Your task to perform on an android device: Go to privacy settings Image 0: 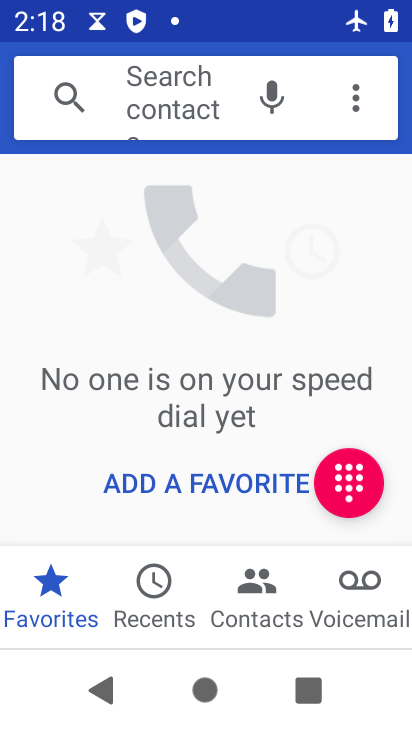
Step 0: press home button
Your task to perform on an android device: Go to privacy settings Image 1: 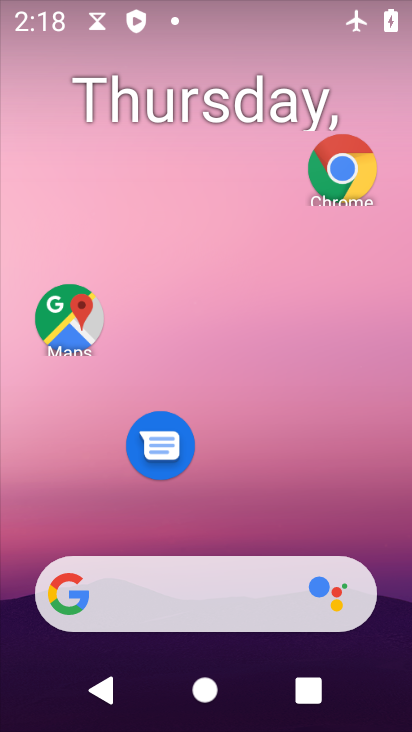
Step 1: click (264, 79)
Your task to perform on an android device: Go to privacy settings Image 2: 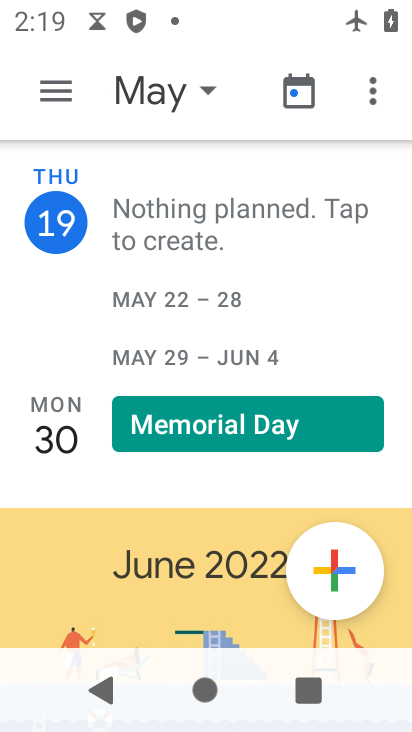
Step 2: drag from (289, 460) to (282, 3)
Your task to perform on an android device: Go to privacy settings Image 3: 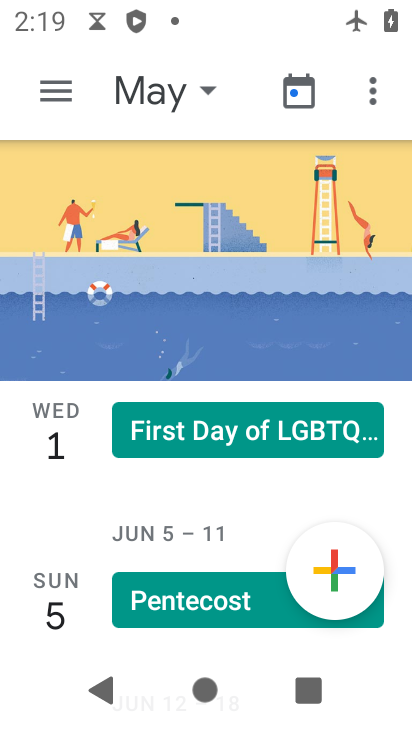
Step 3: press home button
Your task to perform on an android device: Go to privacy settings Image 4: 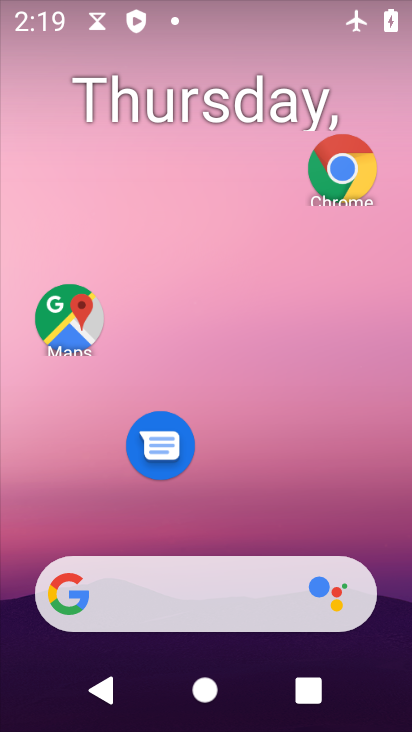
Step 4: drag from (288, 515) to (293, 28)
Your task to perform on an android device: Go to privacy settings Image 5: 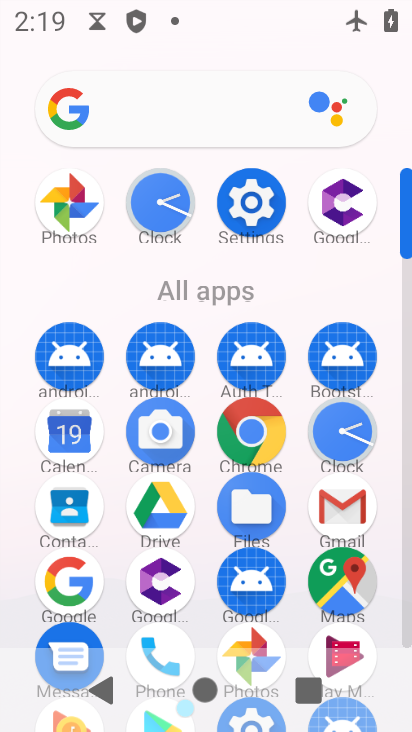
Step 5: drag from (261, 496) to (170, 13)
Your task to perform on an android device: Go to privacy settings Image 6: 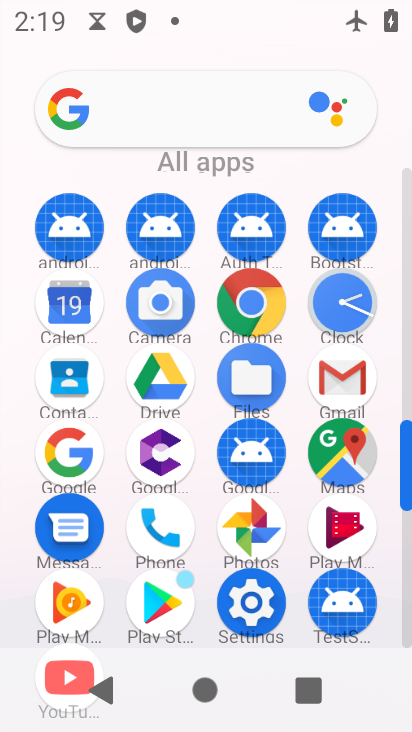
Step 6: click (254, 601)
Your task to perform on an android device: Go to privacy settings Image 7: 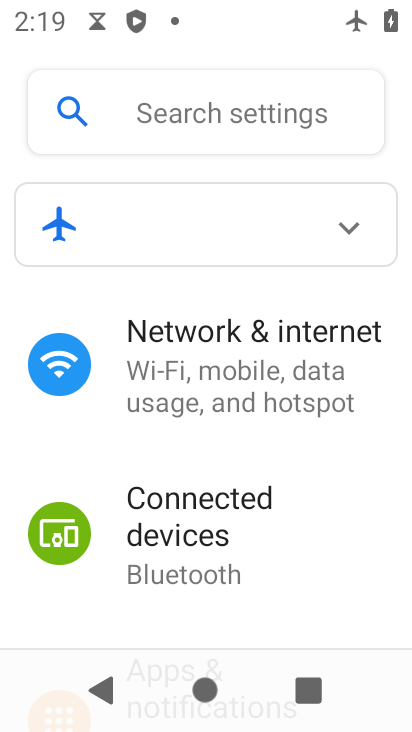
Step 7: drag from (224, 592) to (226, 230)
Your task to perform on an android device: Go to privacy settings Image 8: 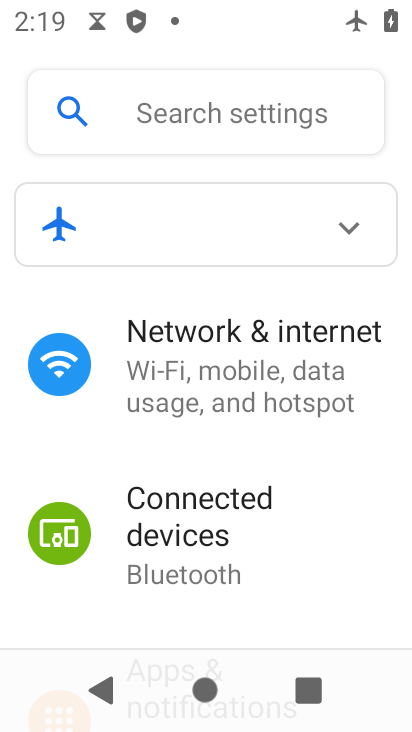
Step 8: click (156, 251)
Your task to perform on an android device: Go to privacy settings Image 9: 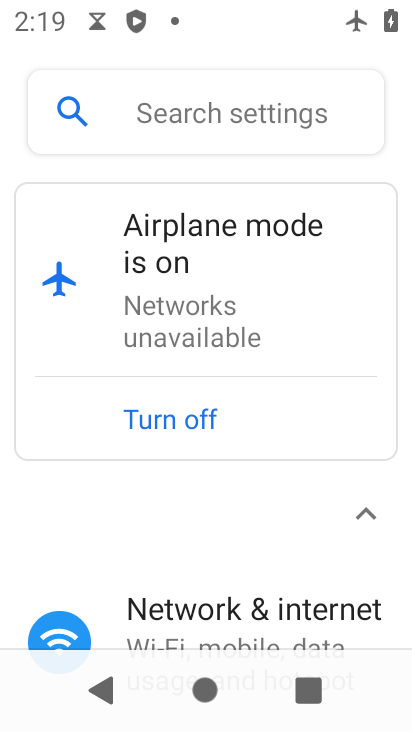
Step 9: drag from (223, 514) to (226, 283)
Your task to perform on an android device: Go to privacy settings Image 10: 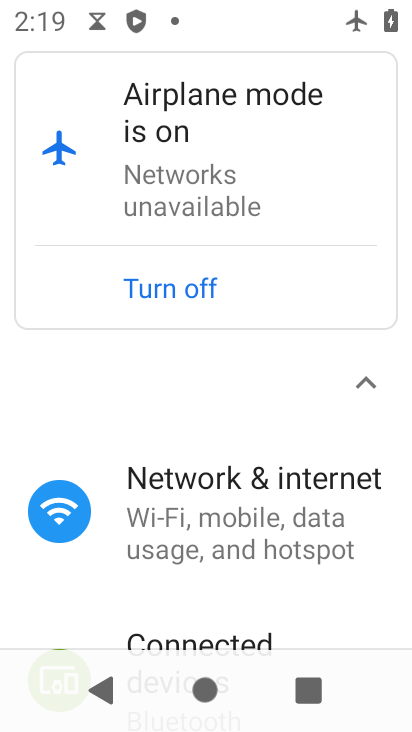
Step 10: drag from (213, 604) to (169, 271)
Your task to perform on an android device: Go to privacy settings Image 11: 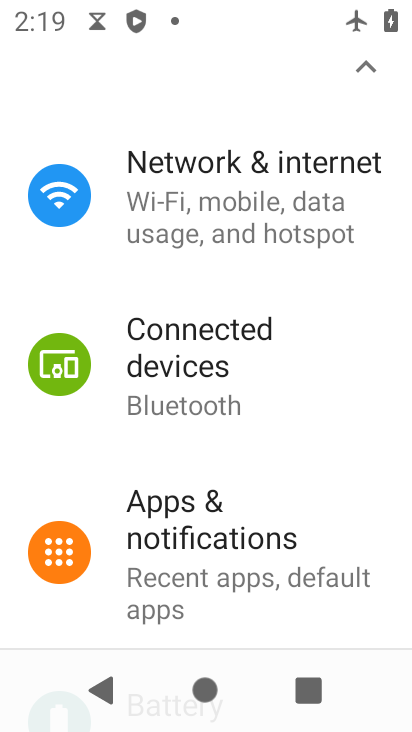
Step 11: click (215, 183)
Your task to perform on an android device: Go to privacy settings Image 12: 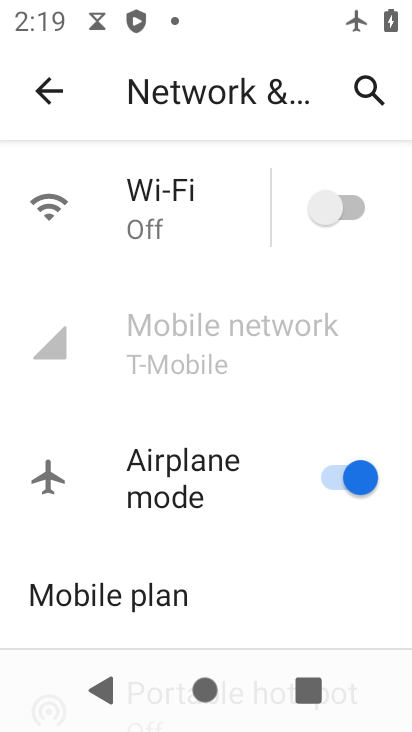
Step 12: click (59, 112)
Your task to perform on an android device: Go to privacy settings Image 13: 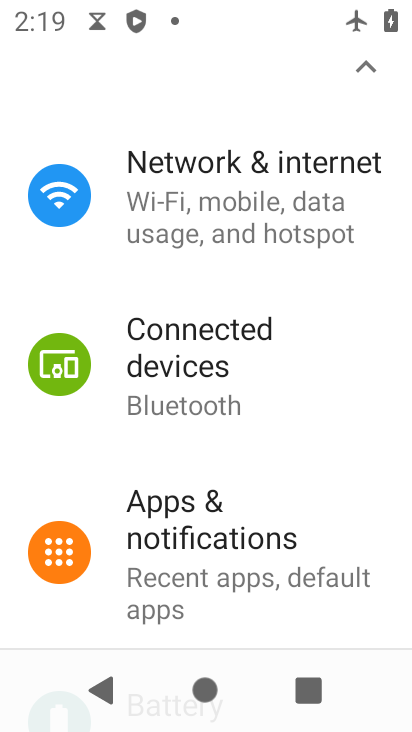
Step 13: drag from (195, 584) to (166, 261)
Your task to perform on an android device: Go to privacy settings Image 14: 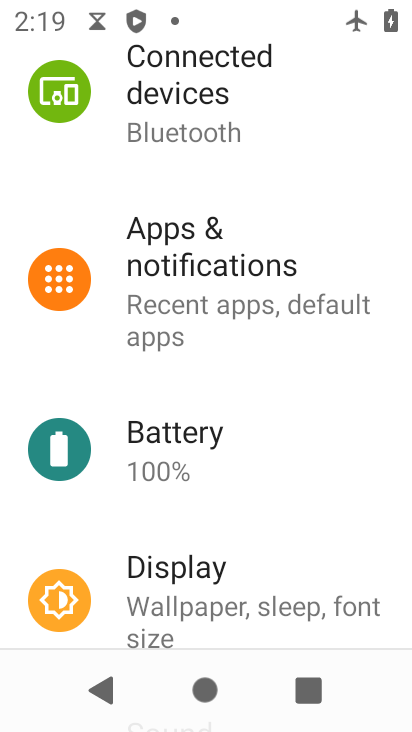
Step 14: click (173, 276)
Your task to perform on an android device: Go to privacy settings Image 15: 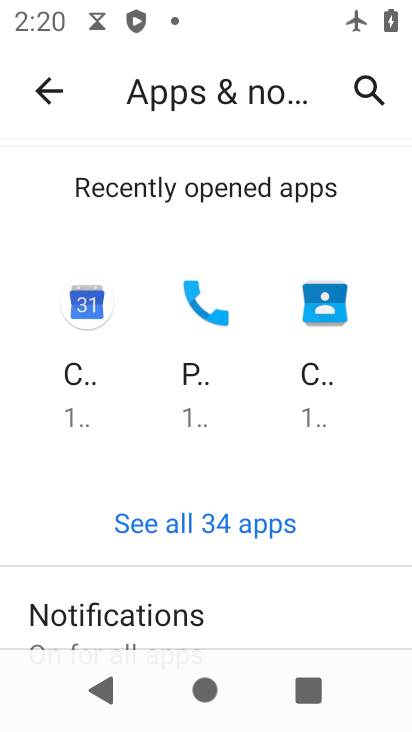
Step 15: click (48, 96)
Your task to perform on an android device: Go to privacy settings Image 16: 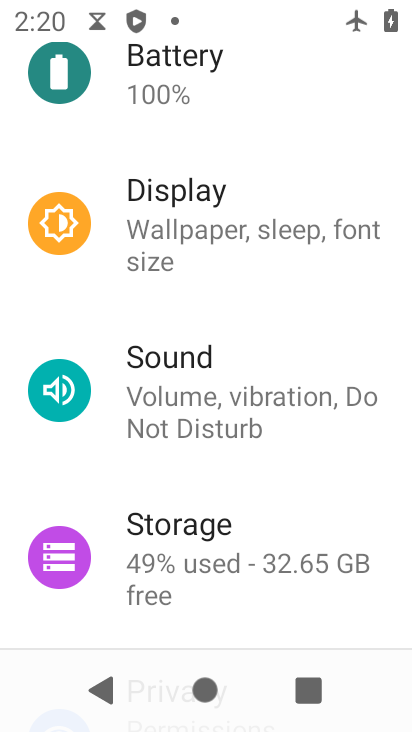
Step 16: drag from (214, 427) to (187, 328)
Your task to perform on an android device: Go to privacy settings Image 17: 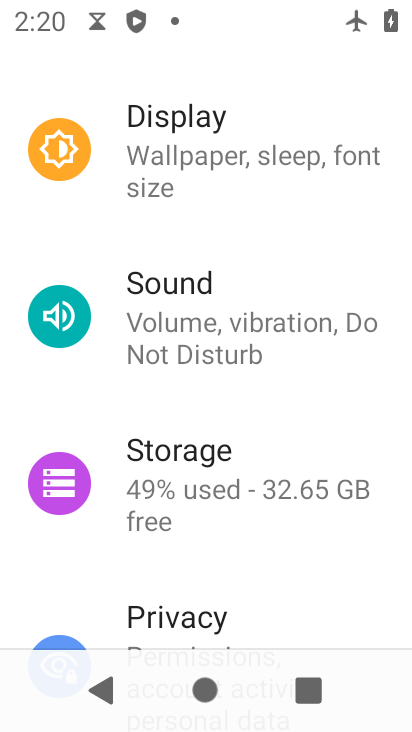
Step 17: click (195, 628)
Your task to perform on an android device: Go to privacy settings Image 18: 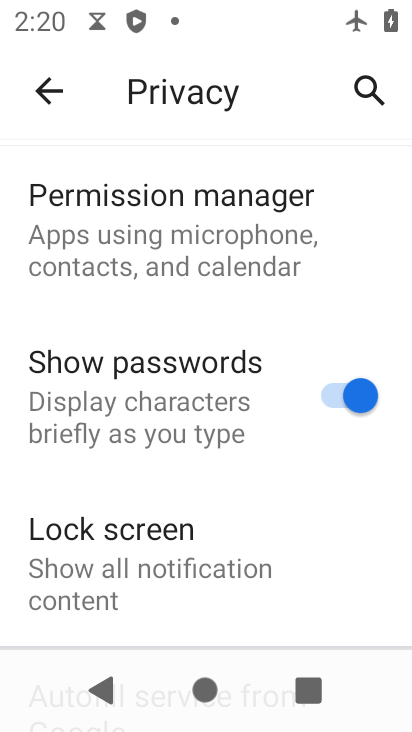
Step 18: task complete